Your task to perform on an android device: Open my contact list Image 0: 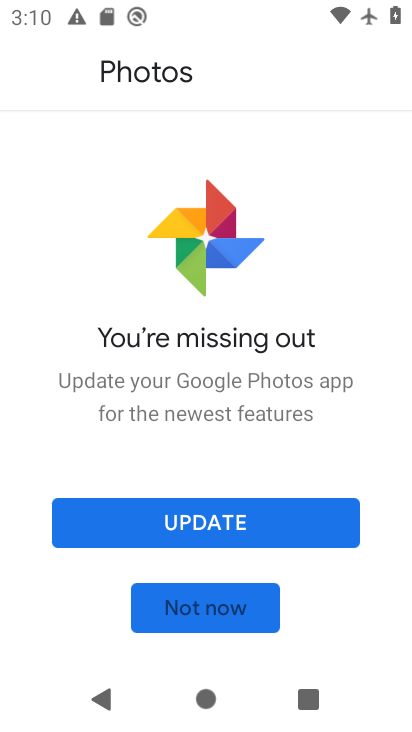
Step 0: press home button
Your task to perform on an android device: Open my contact list Image 1: 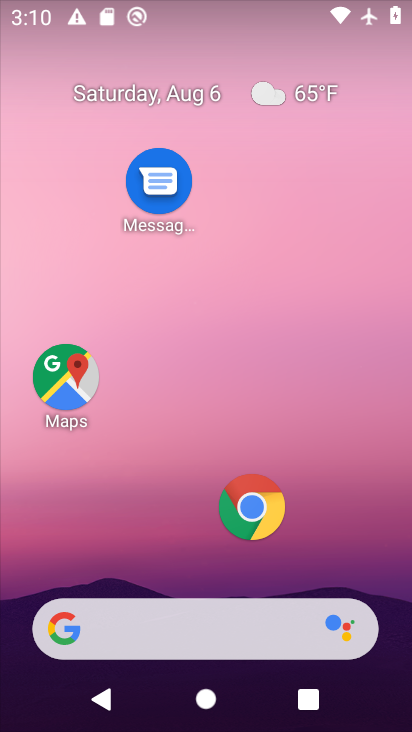
Step 1: drag from (177, 577) to (205, 3)
Your task to perform on an android device: Open my contact list Image 2: 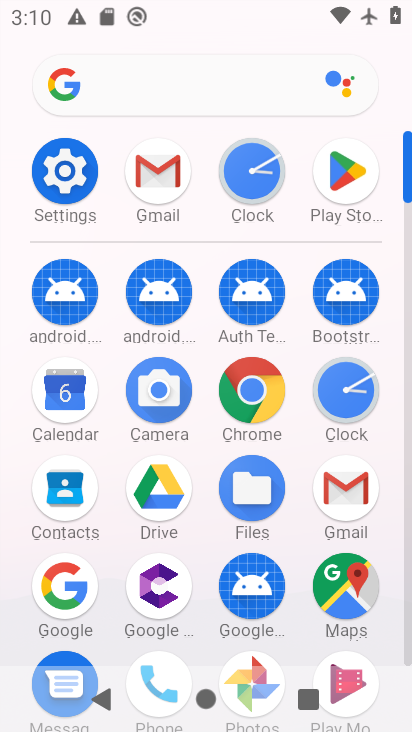
Step 2: drag from (209, 619) to (229, 402)
Your task to perform on an android device: Open my contact list Image 3: 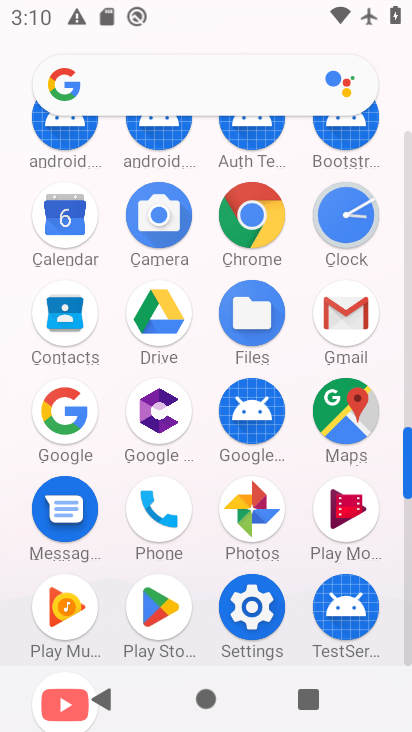
Step 3: click (69, 343)
Your task to perform on an android device: Open my contact list Image 4: 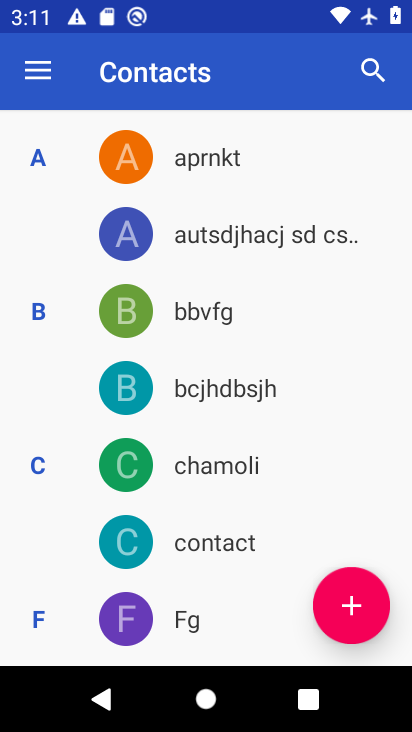
Step 4: task complete